Your task to perform on an android device: check storage Image 0: 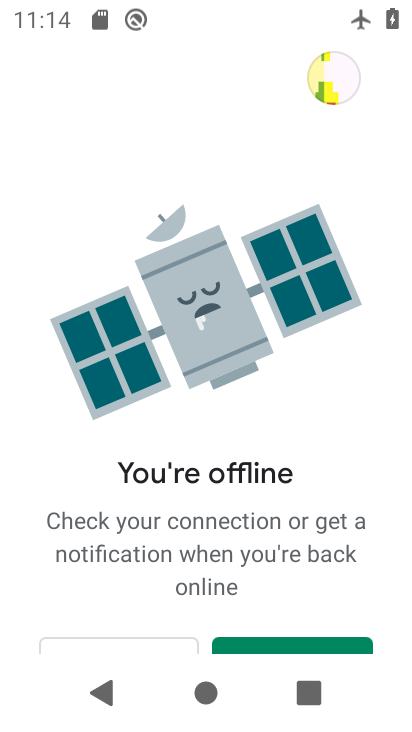
Step 0: press home button
Your task to perform on an android device: check storage Image 1: 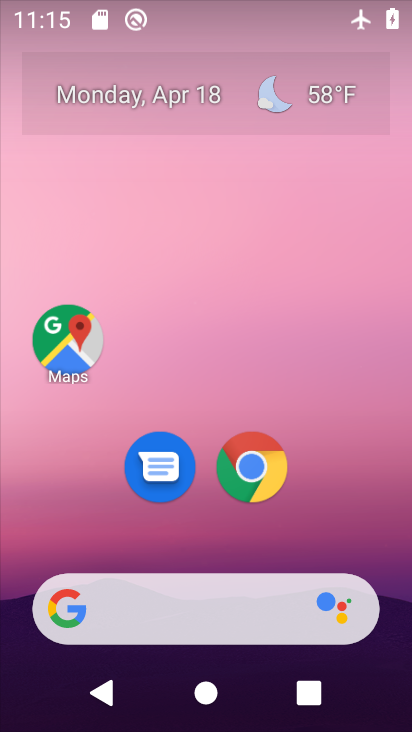
Step 1: click (200, 54)
Your task to perform on an android device: check storage Image 2: 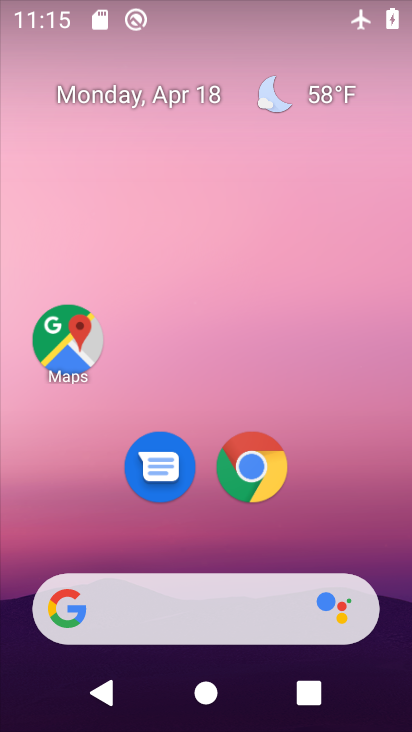
Step 2: drag from (172, 383) to (170, 24)
Your task to perform on an android device: check storage Image 3: 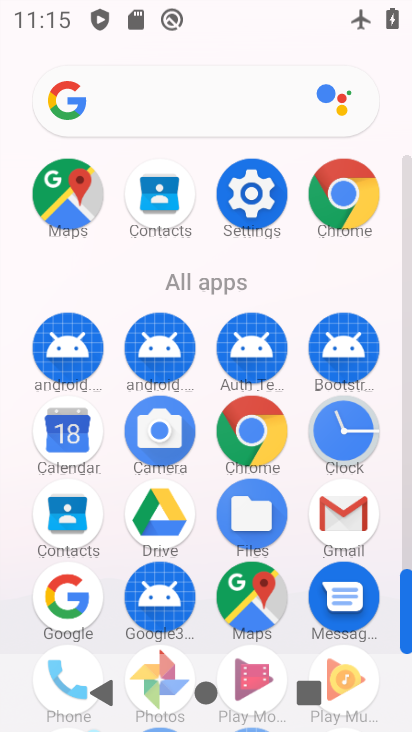
Step 3: click (252, 187)
Your task to perform on an android device: check storage Image 4: 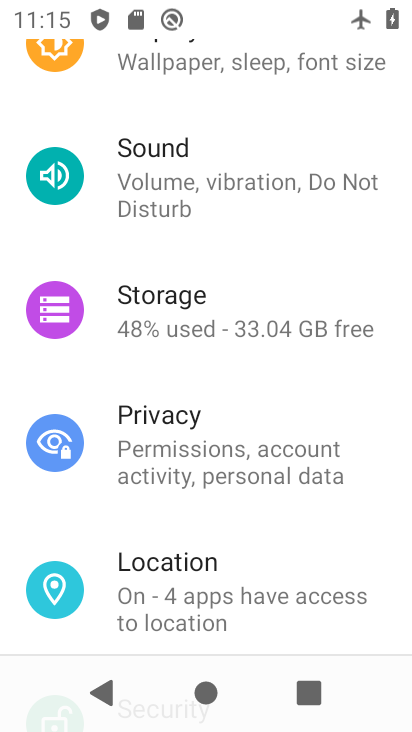
Step 4: click (213, 312)
Your task to perform on an android device: check storage Image 5: 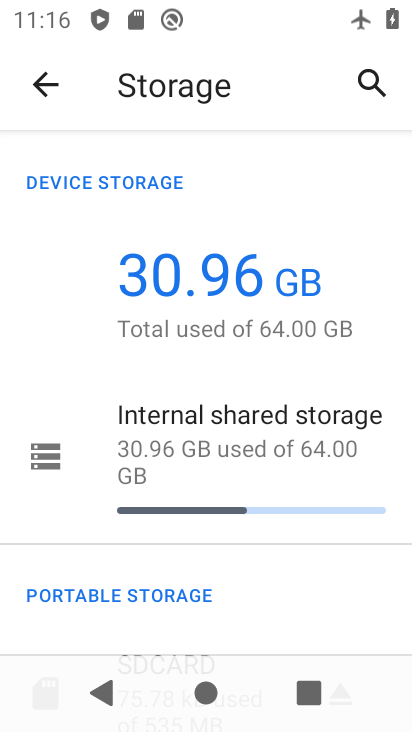
Step 5: task complete